Your task to perform on an android device: see tabs open on other devices in the chrome app Image 0: 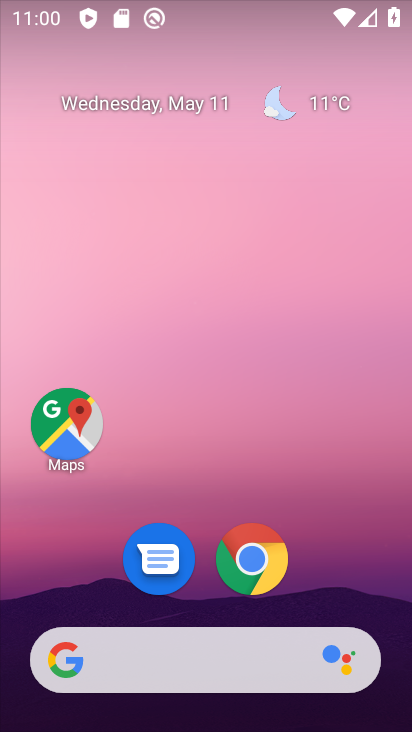
Step 0: click (236, 564)
Your task to perform on an android device: see tabs open on other devices in the chrome app Image 1: 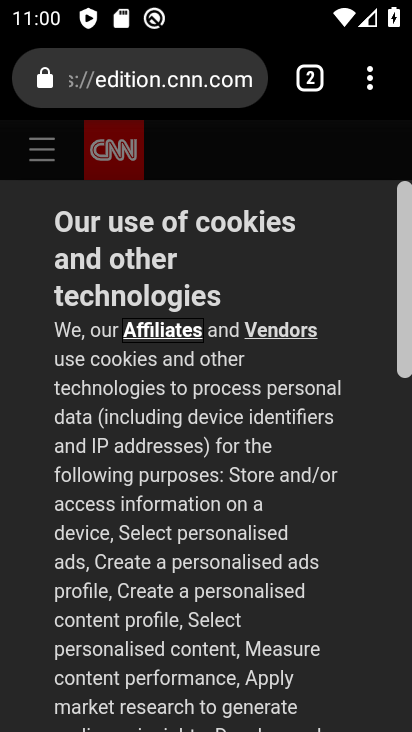
Step 1: click (370, 85)
Your task to perform on an android device: see tabs open on other devices in the chrome app Image 2: 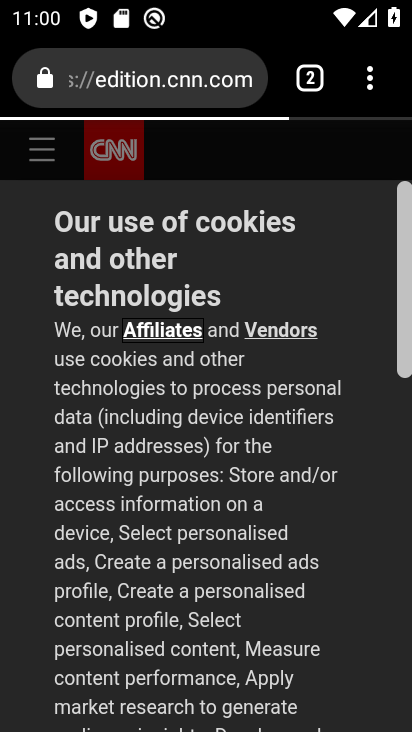
Step 2: click (370, 85)
Your task to perform on an android device: see tabs open on other devices in the chrome app Image 3: 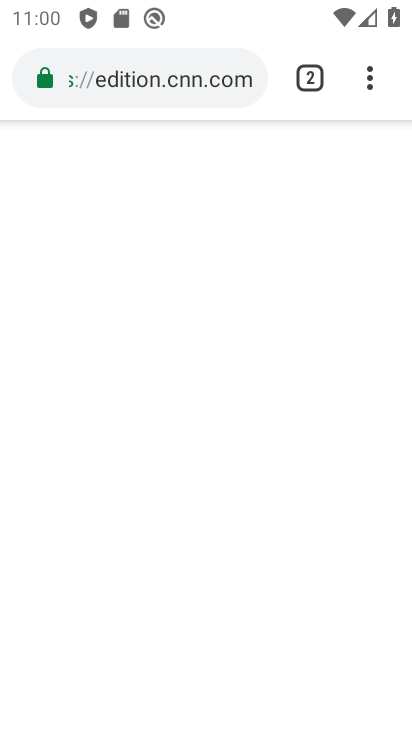
Step 3: click (367, 90)
Your task to perform on an android device: see tabs open on other devices in the chrome app Image 4: 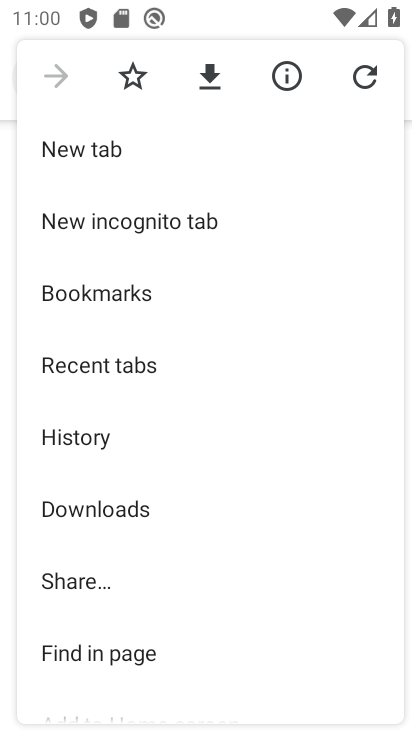
Step 4: click (134, 368)
Your task to perform on an android device: see tabs open on other devices in the chrome app Image 5: 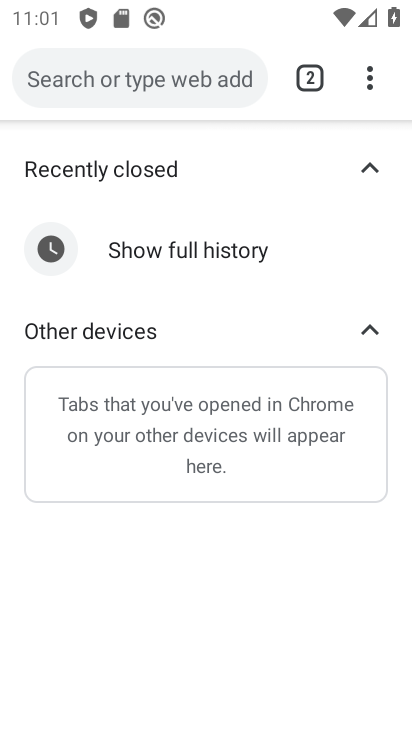
Step 5: task complete